Your task to perform on an android device: toggle show notifications on the lock screen Image 0: 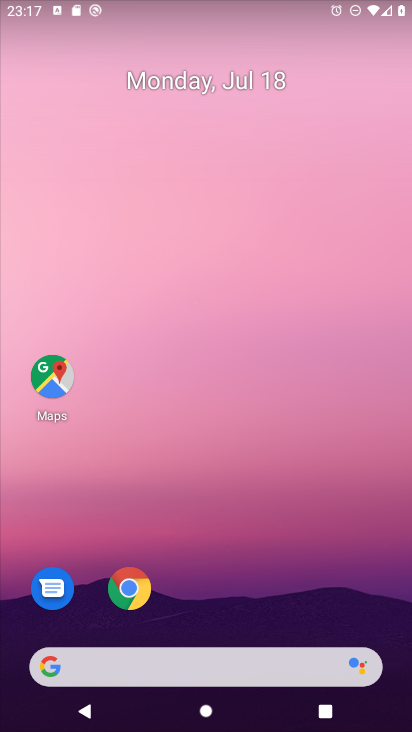
Step 0: drag from (396, 656) to (326, 19)
Your task to perform on an android device: toggle show notifications on the lock screen Image 1: 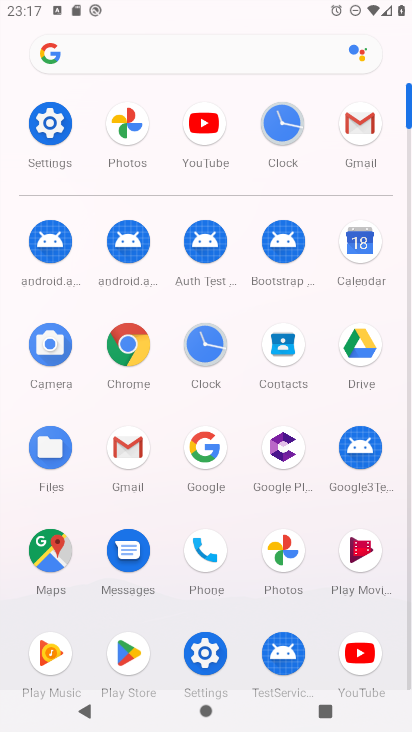
Step 1: click (202, 650)
Your task to perform on an android device: toggle show notifications on the lock screen Image 2: 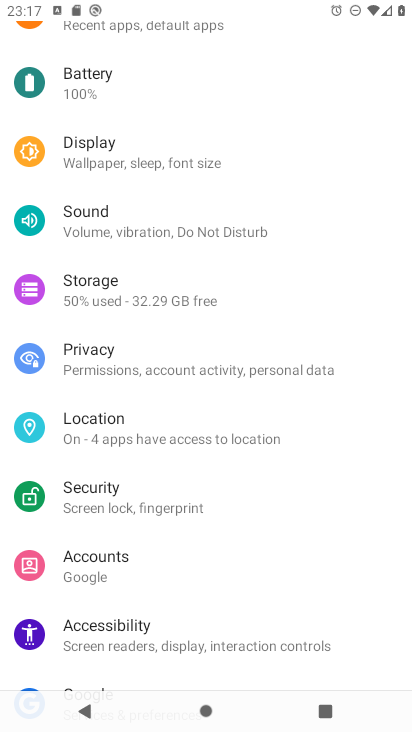
Step 2: drag from (278, 129) to (298, 463)
Your task to perform on an android device: toggle show notifications on the lock screen Image 3: 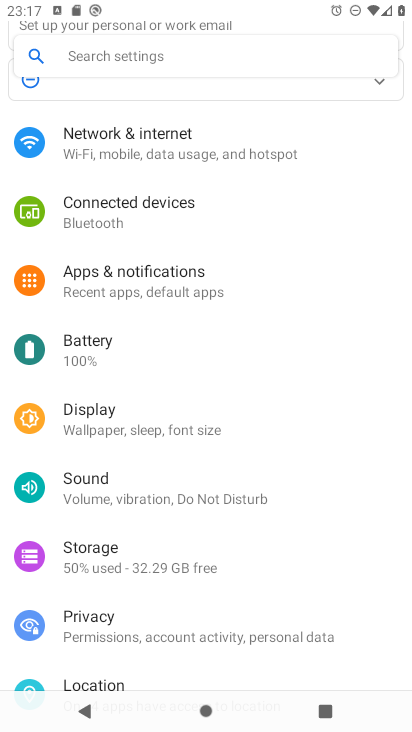
Step 3: click (108, 275)
Your task to perform on an android device: toggle show notifications on the lock screen Image 4: 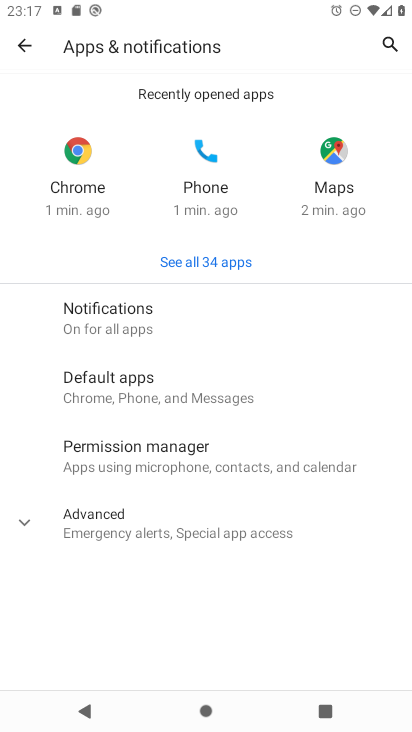
Step 4: click (104, 318)
Your task to perform on an android device: toggle show notifications on the lock screen Image 5: 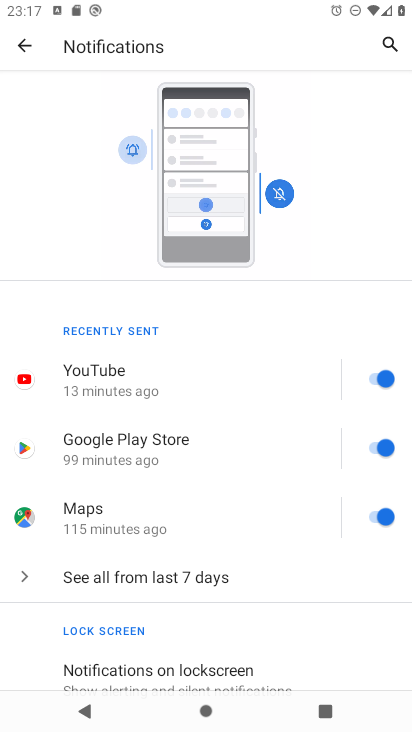
Step 5: drag from (226, 622) to (229, 297)
Your task to perform on an android device: toggle show notifications on the lock screen Image 6: 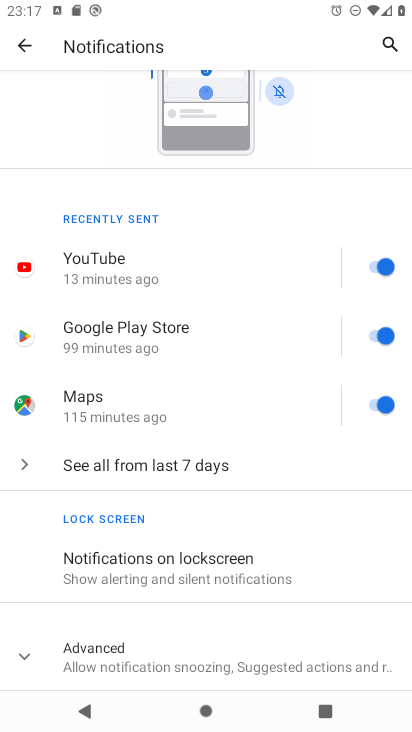
Step 6: click (157, 559)
Your task to perform on an android device: toggle show notifications on the lock screen Image 7: 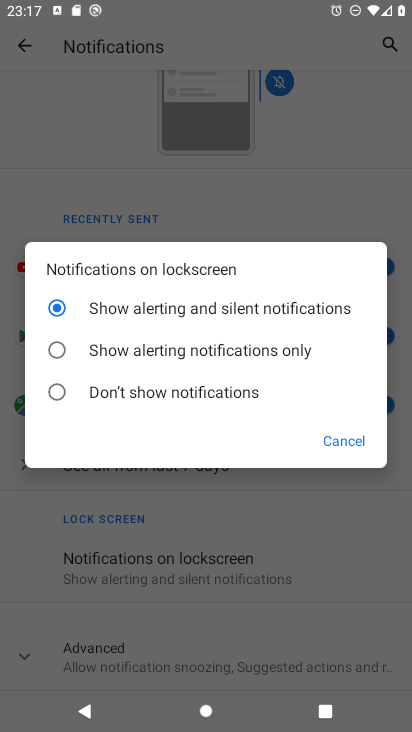
Step 7: click (56, 353)
Your task to perform on an android device: toggle show notifications on the lock screen Image 8: 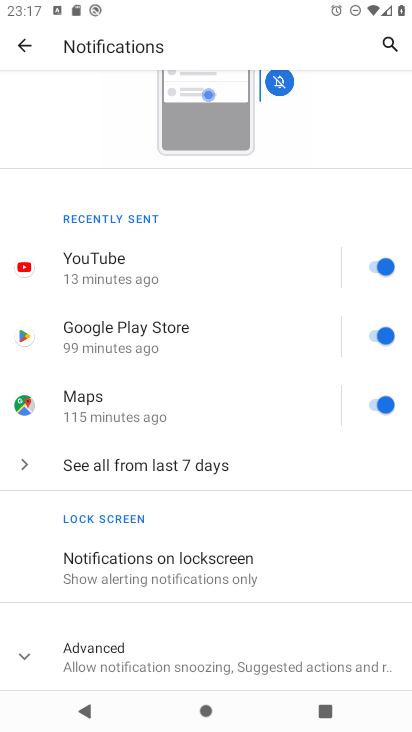
Step 8: task complete